Your task to perform on an android device: What's the weather going to be this weekend? Image 0: 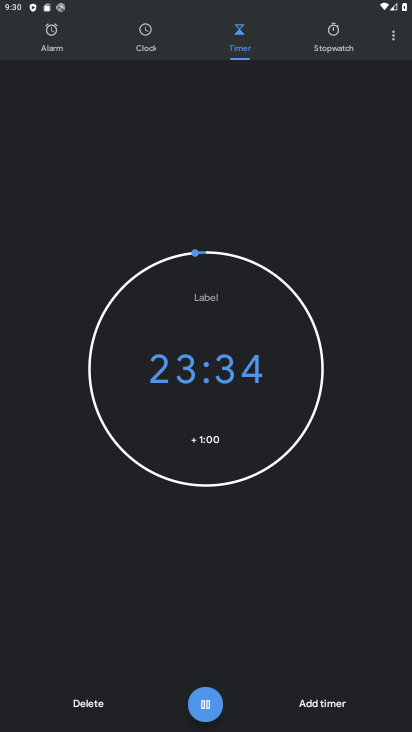
Step 0: drag from (352, 637) to (381, 0)
Your task to perform on an android device: What's the weather going to be this weekend? Image 1: 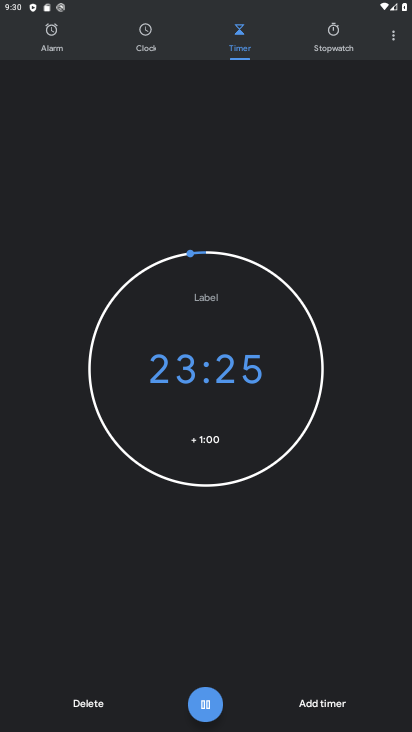
Step 1: press home button
Your task to perform on an android device: What's the weather going to be this weekend? Image 2: 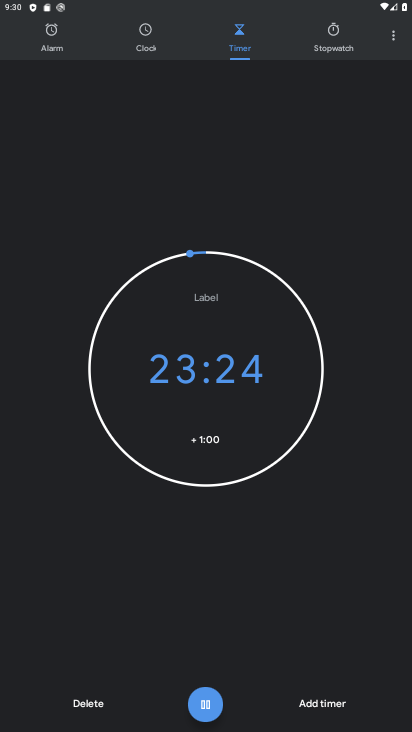
Step 2: press home button
Your task to perform on an android device: What's the weather going to be this weekend? Image 3: 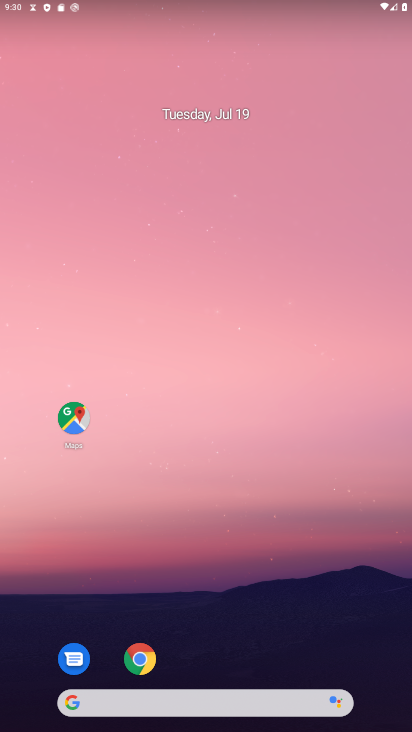
Step 3: drag from (208, 652) to (287, 248)
Your task to perform on an android device: What's the weather going to be this weekend? Image 4: 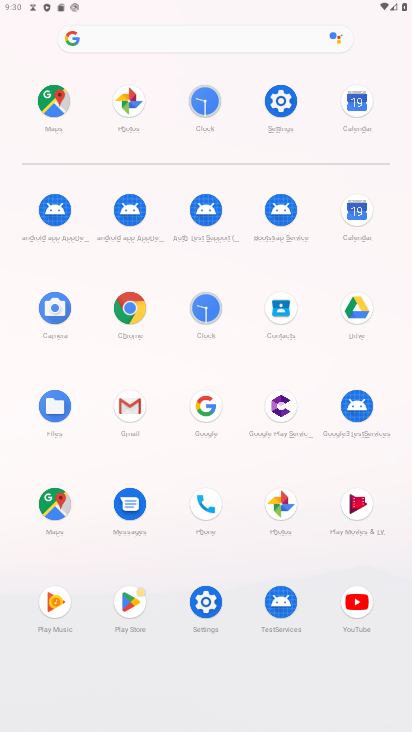
Step 4: click (120, 45)
Your task to perform on an android device: What's the weather going to be this weekend? Image 5: 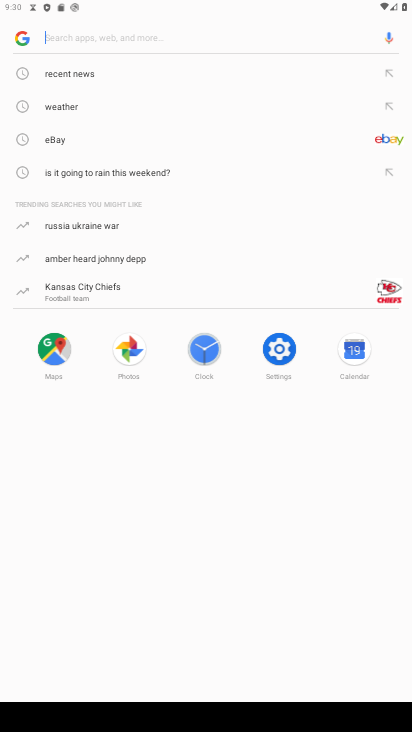
Step 5: type "What's the weather going to be this weekend?"
Your task to perform on an android device: What's the weather going to be this weekend? Image 6: 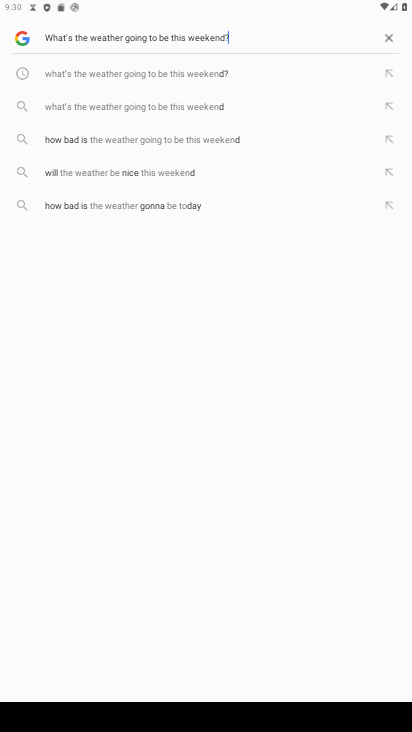
Step 6: type ""
Your task to perform on an android device: What's the weather going to be this weekend? Image 7: 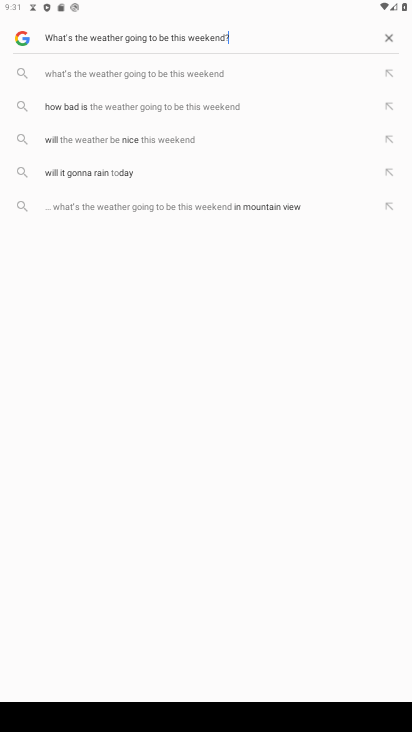
Step 7: click (157, 71)
Your task to perform on an android device: What's the weather going to be this weekend? Image 8: 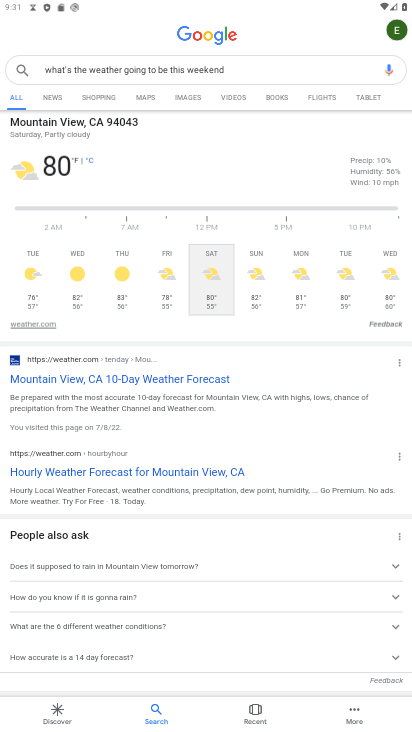
Step 8: task complete